Your task to perform on an android device: Open Google Maps and go to "Timeline" Image 0: 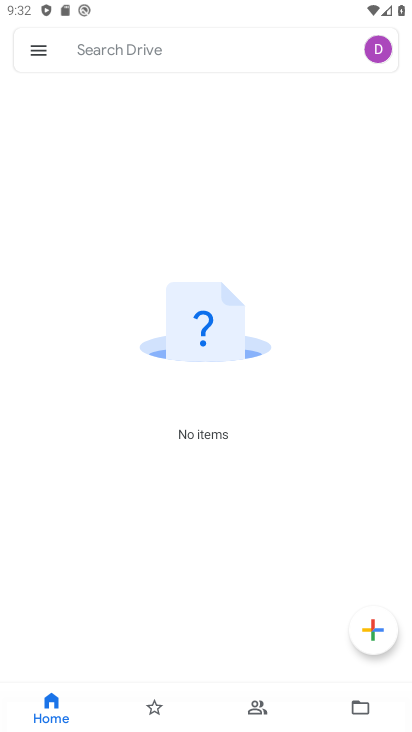
Step 0: press home button
Your task to perform on an android device: Open Google Maps and go to "Timeline" Image 1: 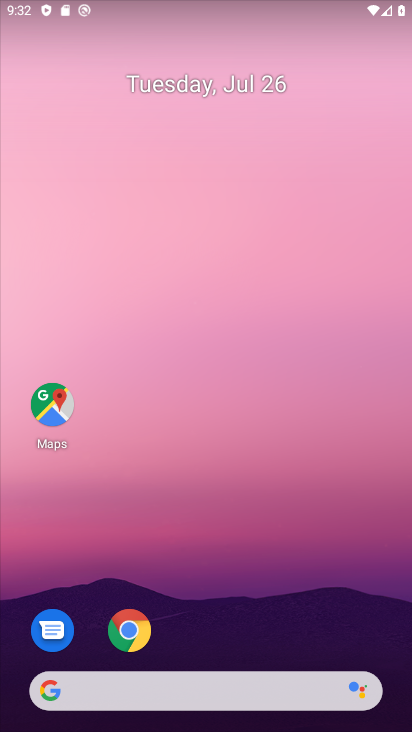
Step 1: click (52, 400)
Your task to perform on an android device: Open Google Maps and go to "Timeline" Image 2: 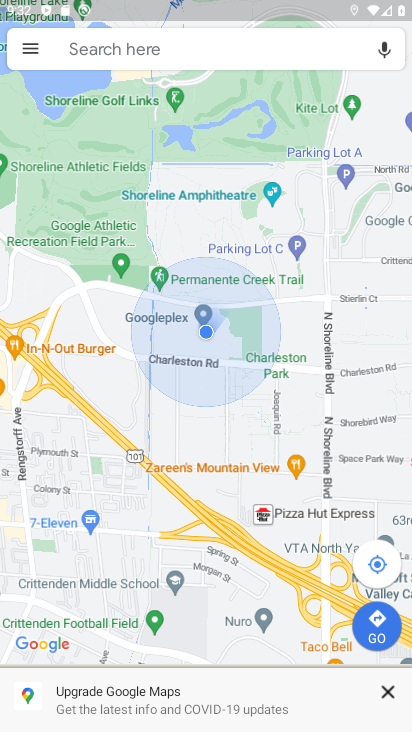
Step 2: click (28, 50)
Your task to perform on an android device: Open Google Maps and go to "Timeline" Image 3: 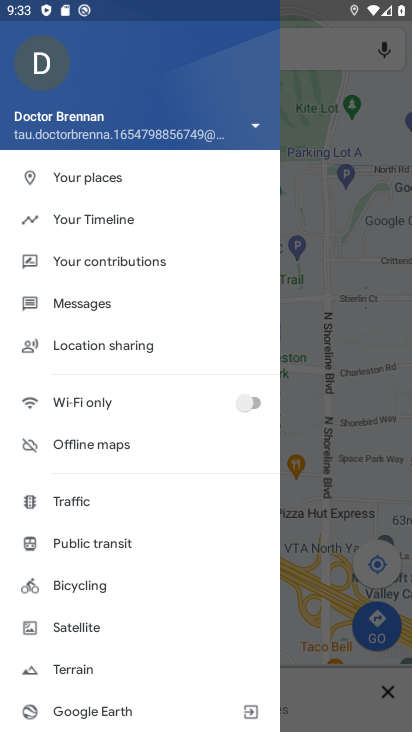
Step 3: click (102, 207)
Your task to perform on an android device: Open Google Maps and go to "Timeline" Image 4: 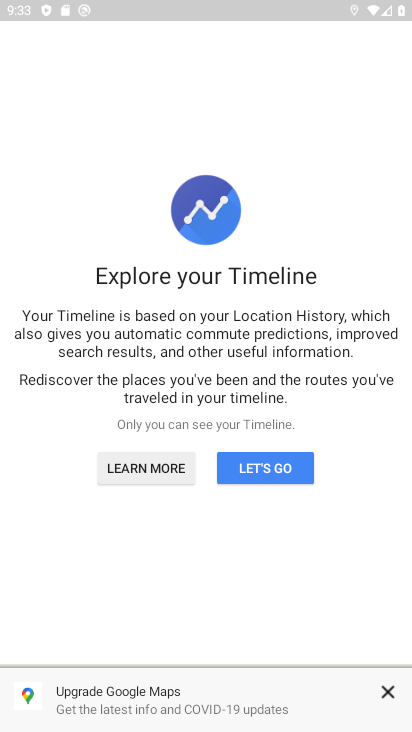
Step 4: click (264, 470)
Your task to perform on an android device: Open Google Maps and go to "Timeline" Image 5: 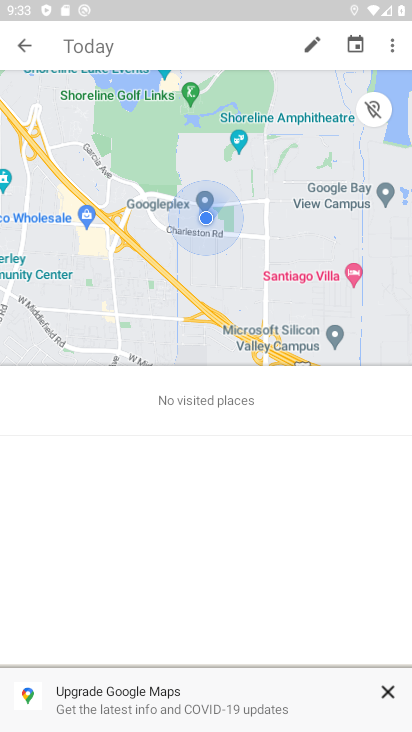
Step 5: task complete